Your task to perform on an android device: Open calendar and show me the second week of next month Image 0: 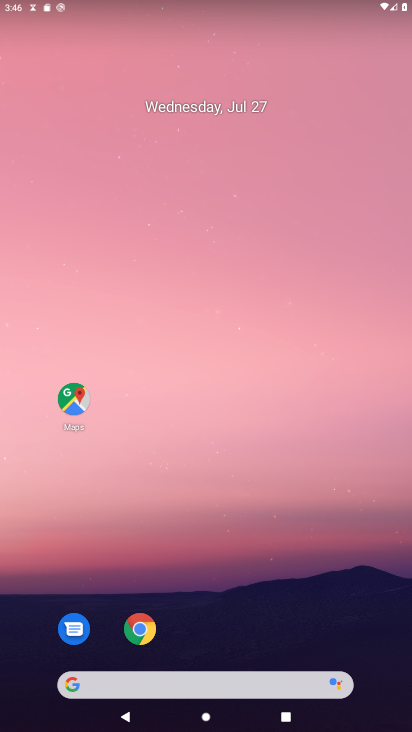
Step 0: press home button
Your task to perform on an android device: Open calendar and show me the second week of next month Image 1: 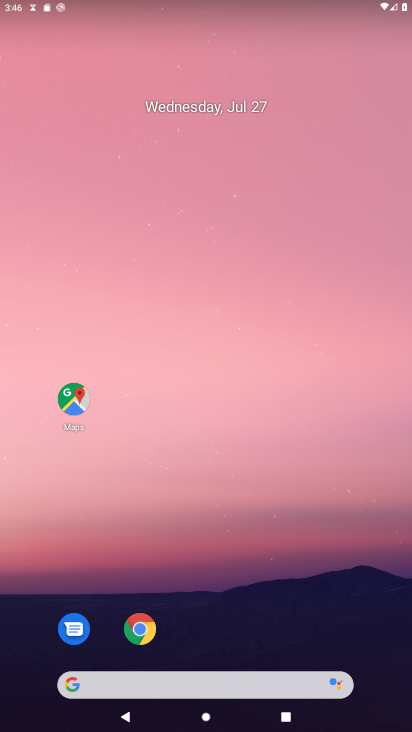
Step 1: drag from (226, 664) to (231, 8)
Your task to perform on an android device: Open calendar and show me the second week of next month Image 2: 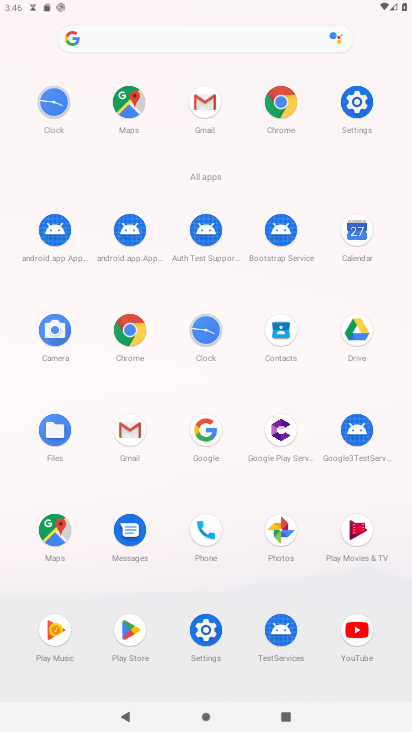
Step 2: click (360, 238)
Your task to perform on an android device: Open calendar and show me the second week of next month Image 3: 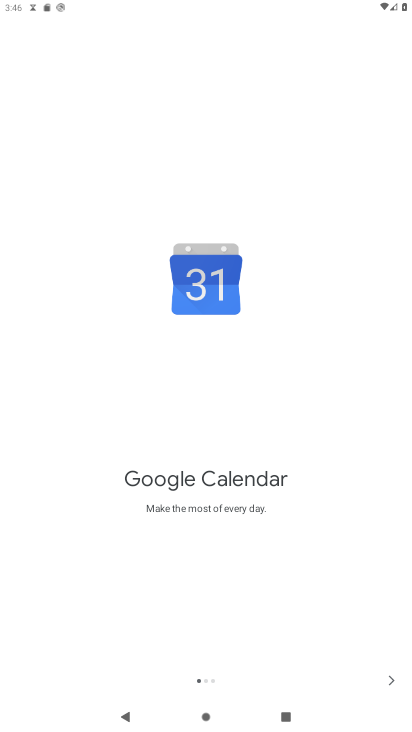
Step 3: click (376, 684)
Your task to perform on an android device: Open calendar and show me the second week of next month Image 4: 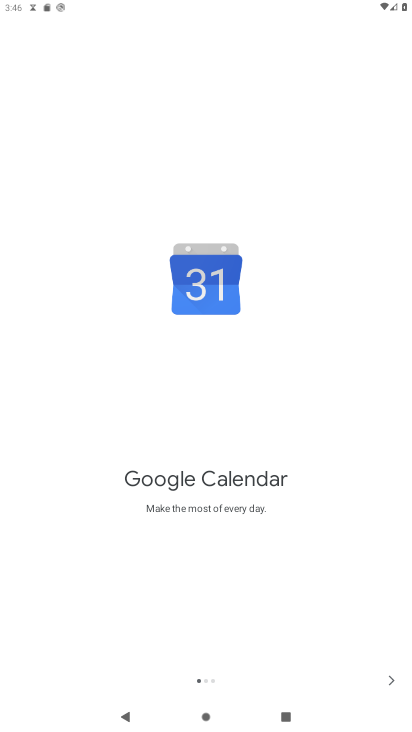
Step 4: click (389, 667)
Your task to perform on an android device: Open calendar and show me the second week of next month Image 5: 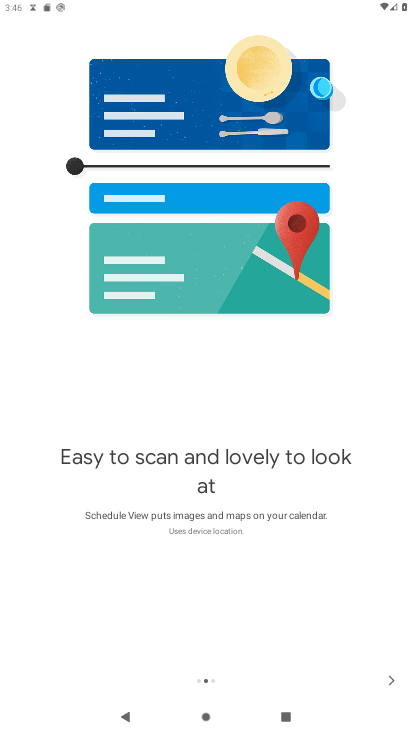
Step 5: click (389, 667)
Your task to perform on an android device: Open calendar and show me the second week of next month Image 6: 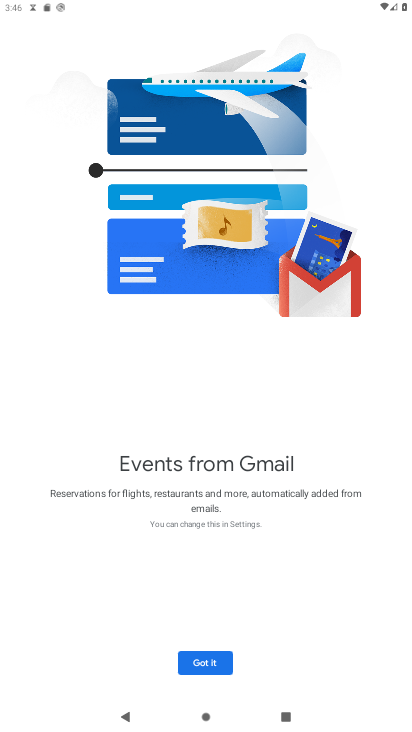
Step 6: click (389, 667)
Your task to perform on an android device: Open calendar and show me the second week of next month Image 7: 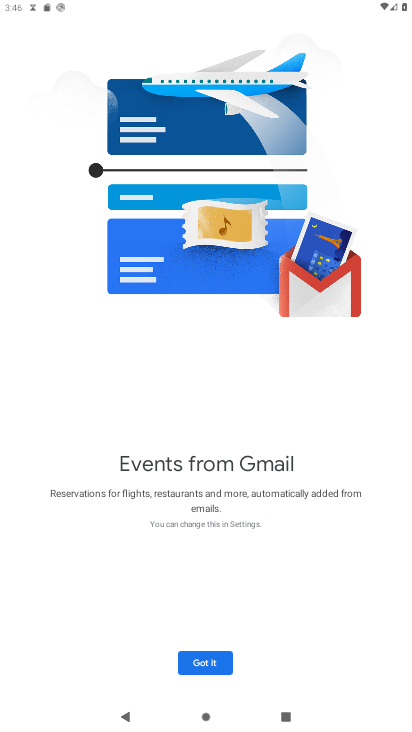
Step 7: click (179, 661)
Your task to perform on an android device: Open calendar and show me the second week of next month Image 8: 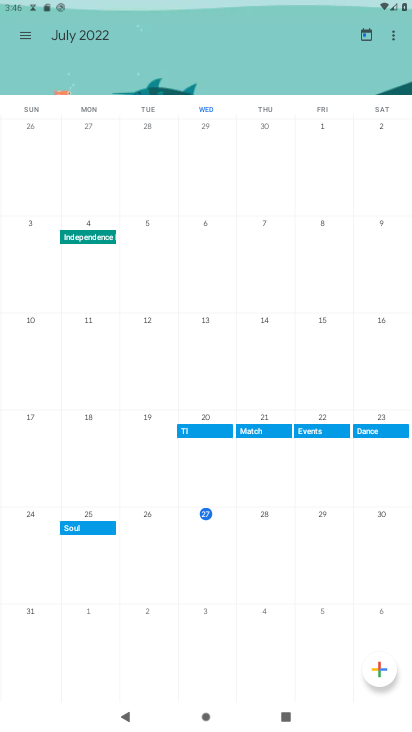
Step 8: drag from (331, 325) to (5, 278)
Your task to perform on an android device: Open calendar and show me the second week of next month Image 9: 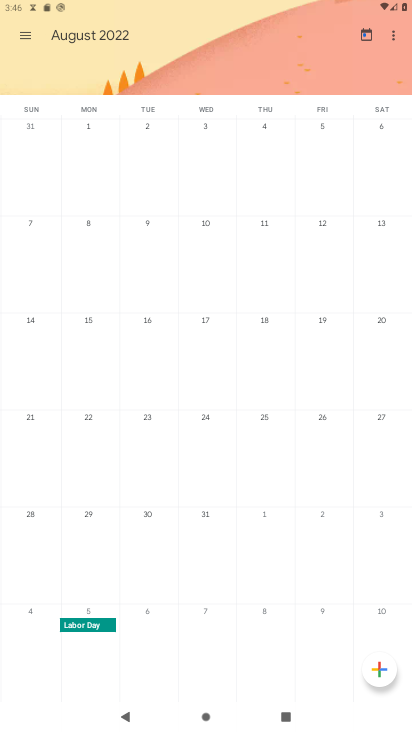
Step 9: click (83, 244)
Your task to perform on an android device: Open calendar and show me the second week of next month Image 10: 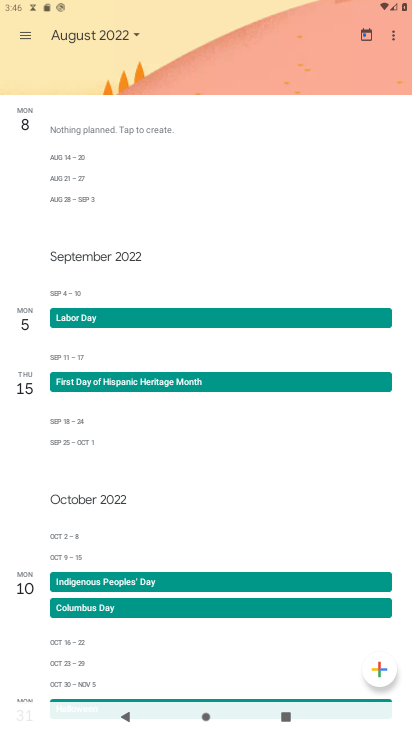
Step 10: task complete